Your task to perform on an android device: install app "eBay: The shopping marketplace" Image 0: 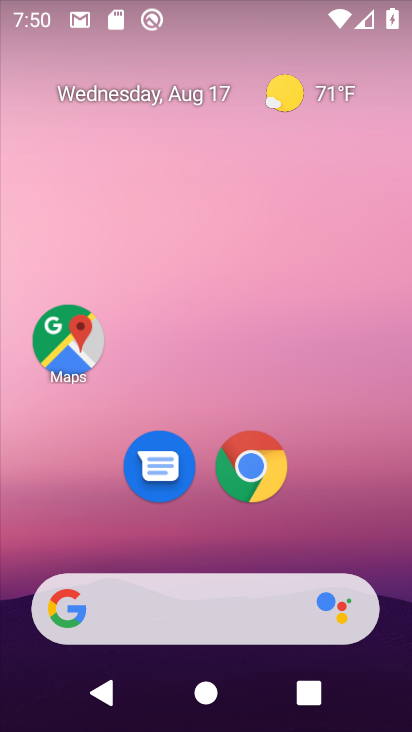
Step 0: drag from (202, 551) to (201, 180)
Your task to perform on an android device: install app "eBay: The shopping marketplace" Image 1: 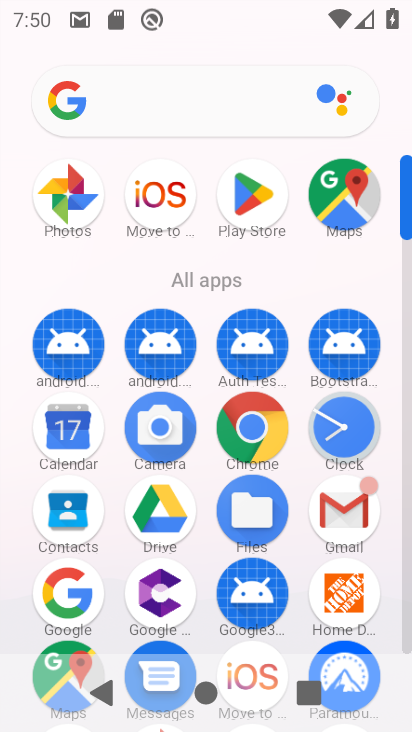
Step 1: click (258, 198)
Your task to perform on an android device: install app "eBay: The shopping marketplace" Image 2: 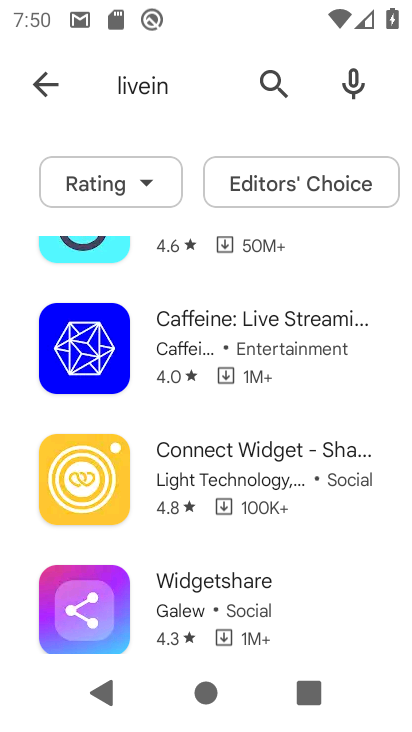
Step 2: click (178, 80)
Your task to perform on an android device: install app "eBay: The shopping marketplace" Image 3: 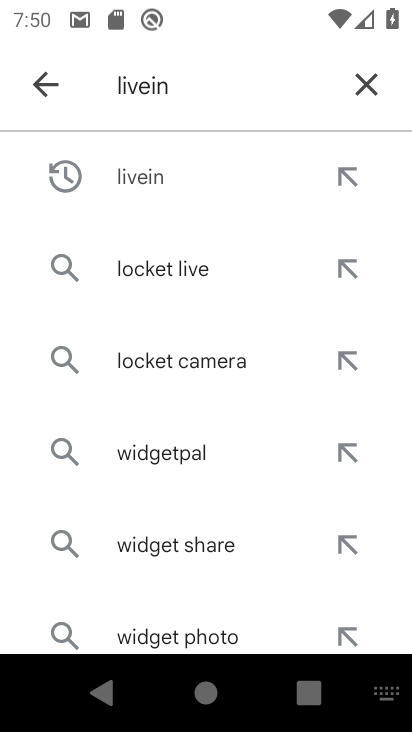
Step 3: click (358, 85)
Your task to perform on an android device: install app "eBay: The shopping marketplace" Image 4: 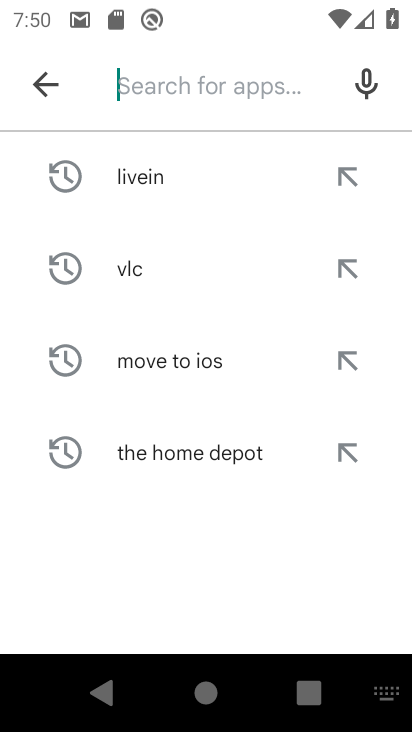
Step 4: type "eBay"
Your task to perform on an android device: install app "eBay: The shopping marketplace" Image 5: 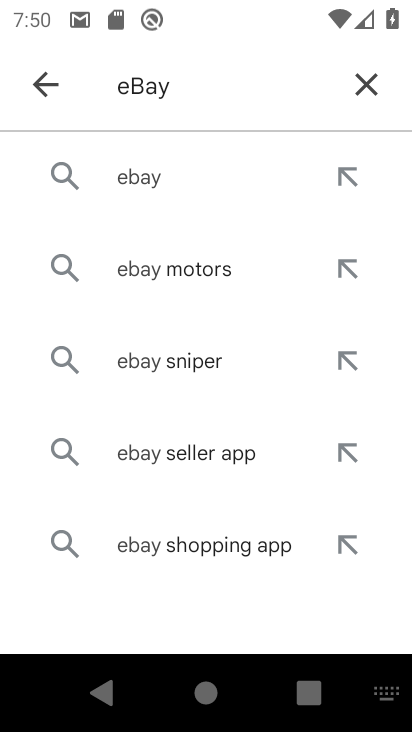
Step 5: click (195, 180)
Your task to perform on an android device: install app "eBay: The shopping marketplace" Image 6: 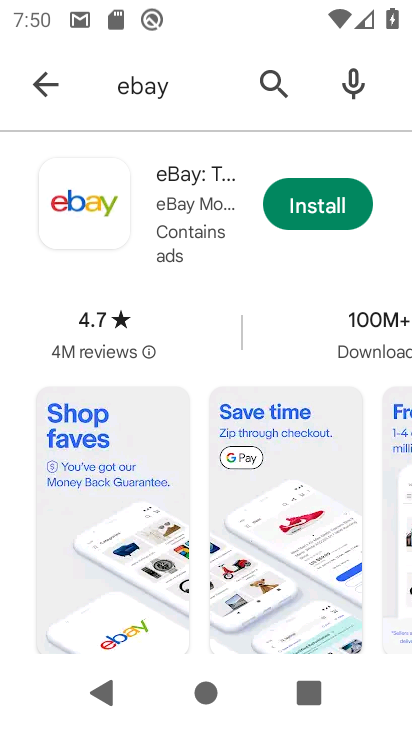
Step 6: click (327, 202)
Your task to perform on an android device: install app "eBay: The shopping marketplace" Image 7: 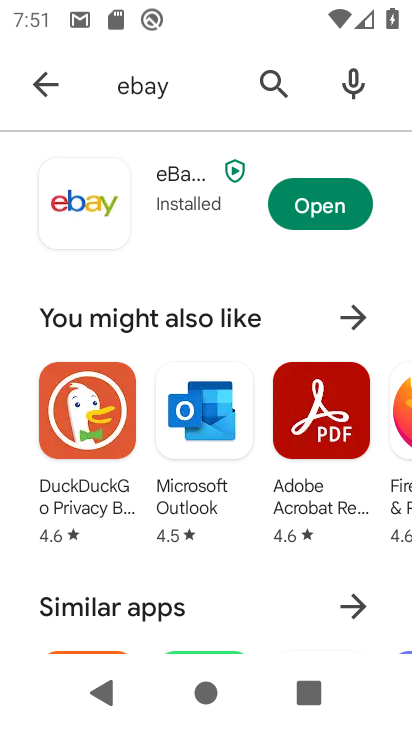
Step 7: click (337, 198)
Your task to perform on an android device: install app "eBay: The shopping marketplace" Image 8: 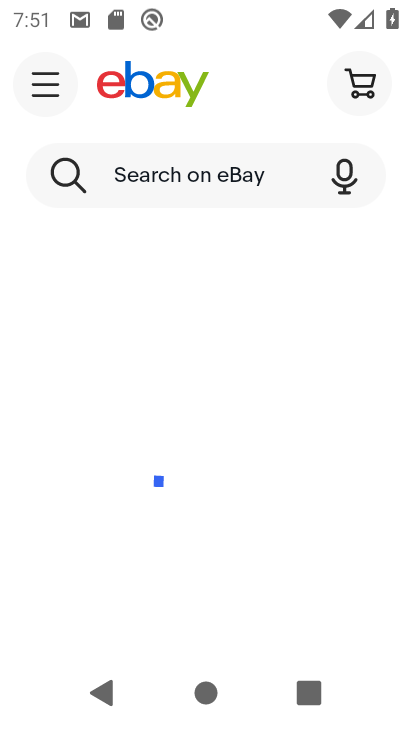
Step 8: task complete